Your task to perform on an android device: Open Google Chrome and open the bookmarks view Image 0: 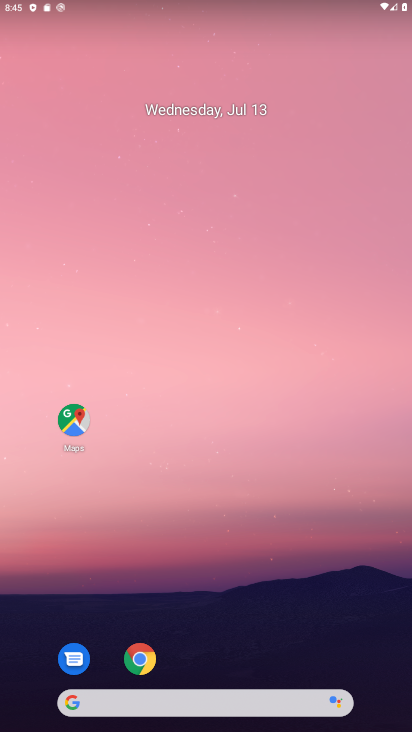
Step 0: click (141, 660)
Your task to perform on an android device: Open Google Chrome and open the bookmarks view Image 1: 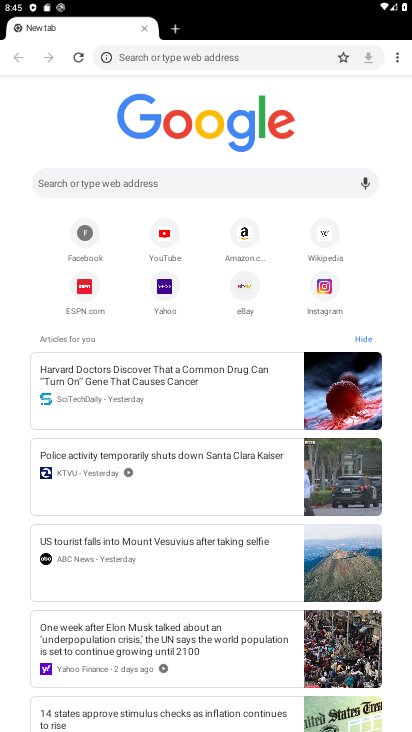
Step 1: click (394, 57)
Your task to perform on an android device: Open Google Chrome and open the bookmarks view Image 2: 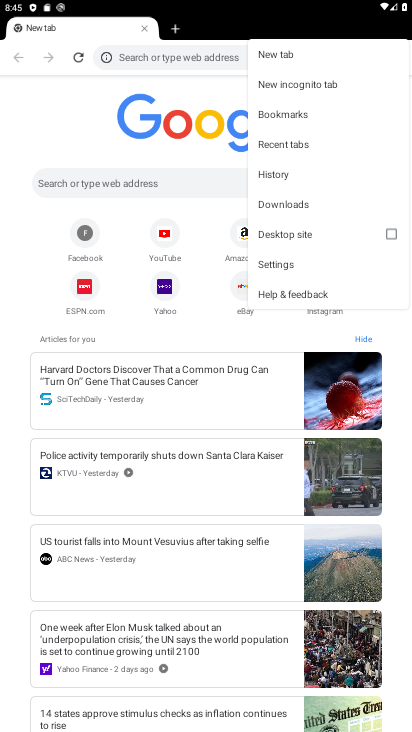
Step 2: click (315, 118)
Your task to perform on an android device: Open Google Chrome and open the bookmarks view Image 3: 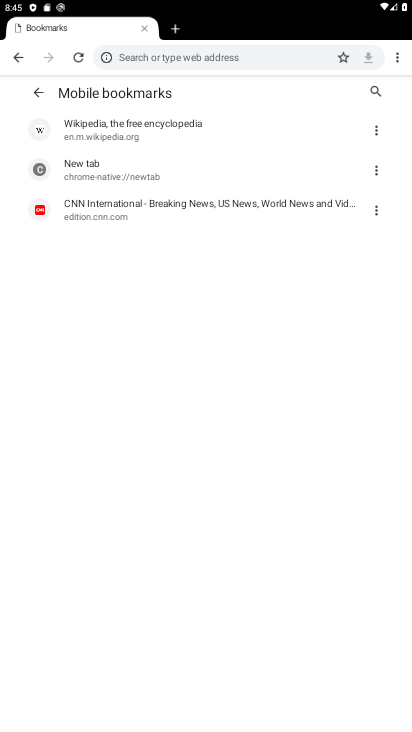
Step 3: click (110, 202)
Your task to perform on an android device: Open Google Chrome and open the bookmarks view Image 4: 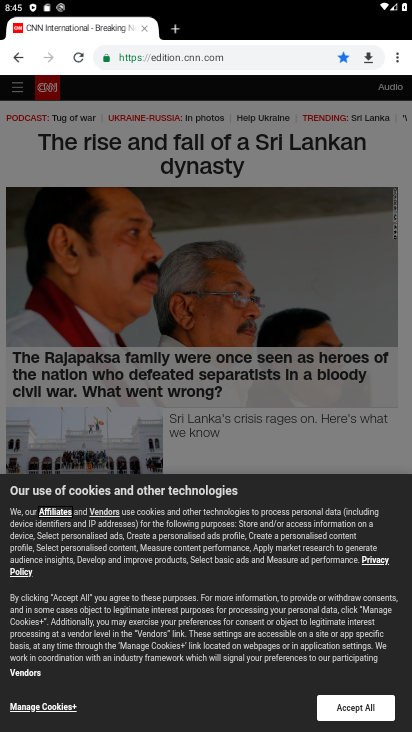
Step 4: task complete